Your task to perform on an android device: create a new album in the google photos Image 0: 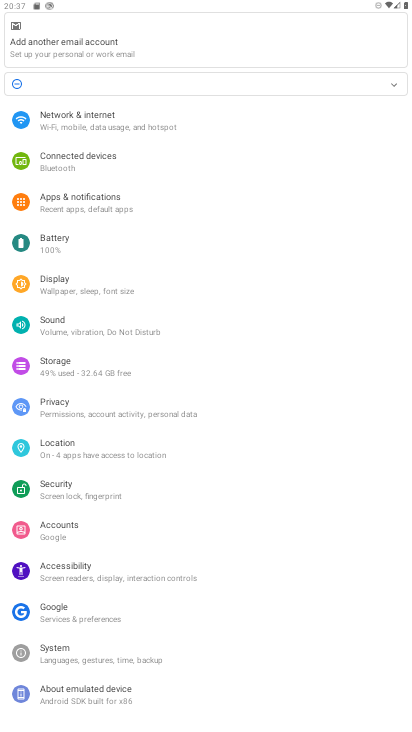
Step 0: press home button
Your task to perform on an android device: create a new album in the google photos Image 1: 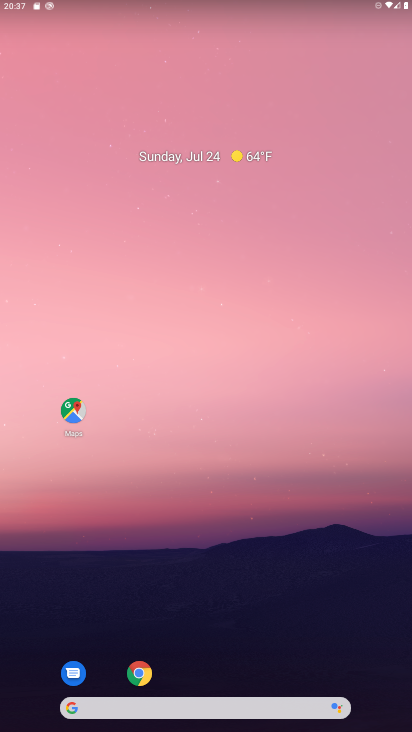
Step 1: drag from (310, 554) to (272, 107)
Your task to perform on an android device: create a new album in the google photos Image 2: 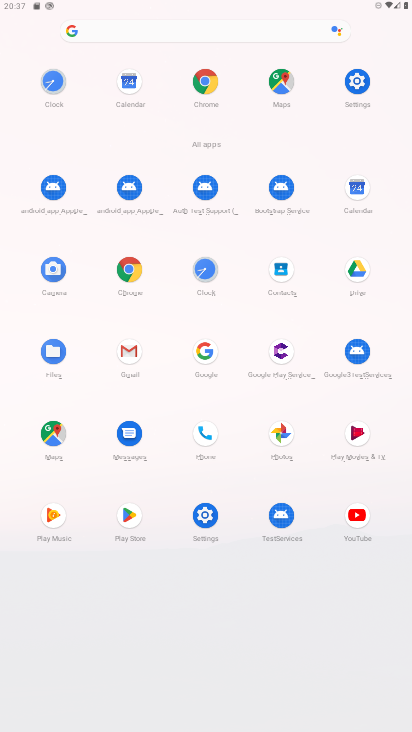
Step 2: click (283, 426)
Your task to perform on an android device: create a new album in the google photos Image 3: 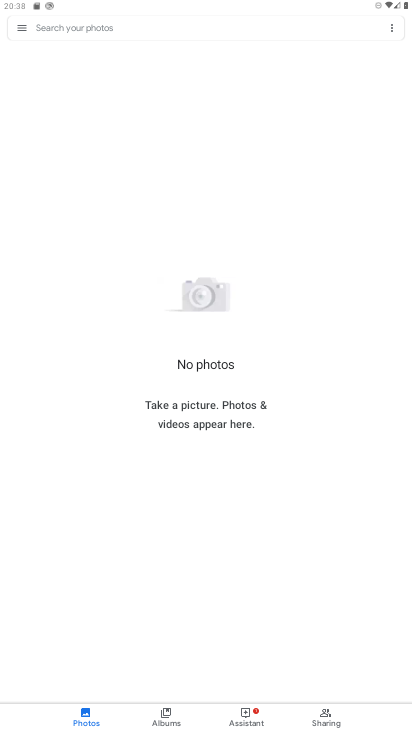
Step 3: task complete